Your task to perform on an android device: install app "DuckDuckGo Privacy Browser" Image 0: 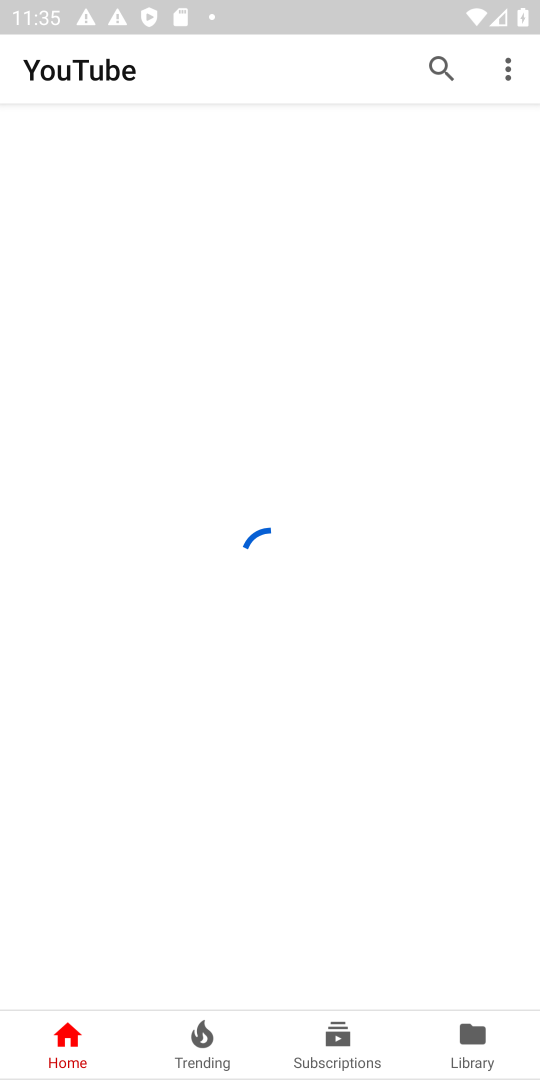
Step 0: press home button
Your task to perform on an android device: install app "DuckDuckGo Privacy Browser" Image 1: 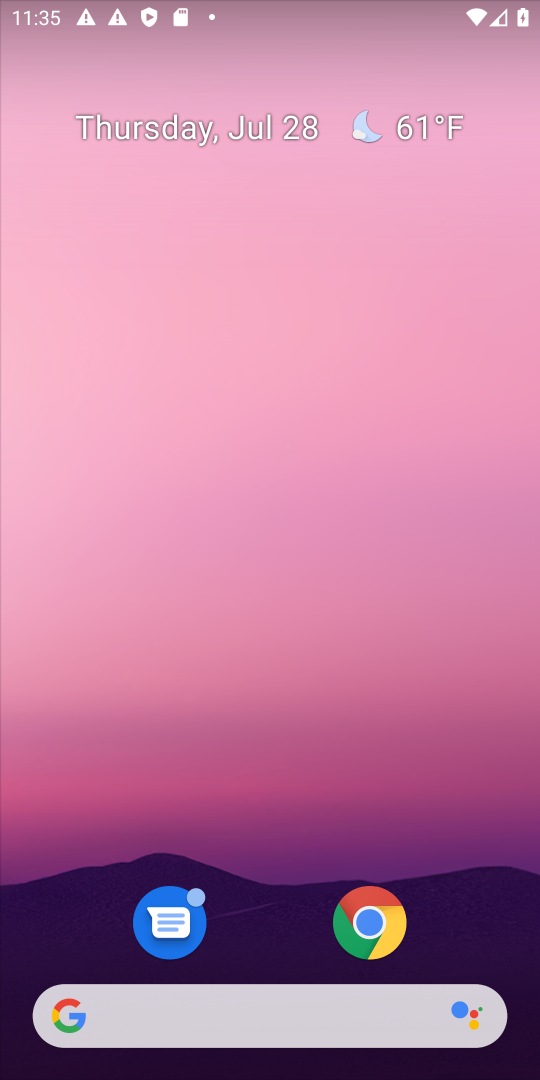
Step 1: drag from (470, 878) to (440, 136)
Your task to perform on an android device: install app "DuckDuckGo Privacy Browser" Image 2: 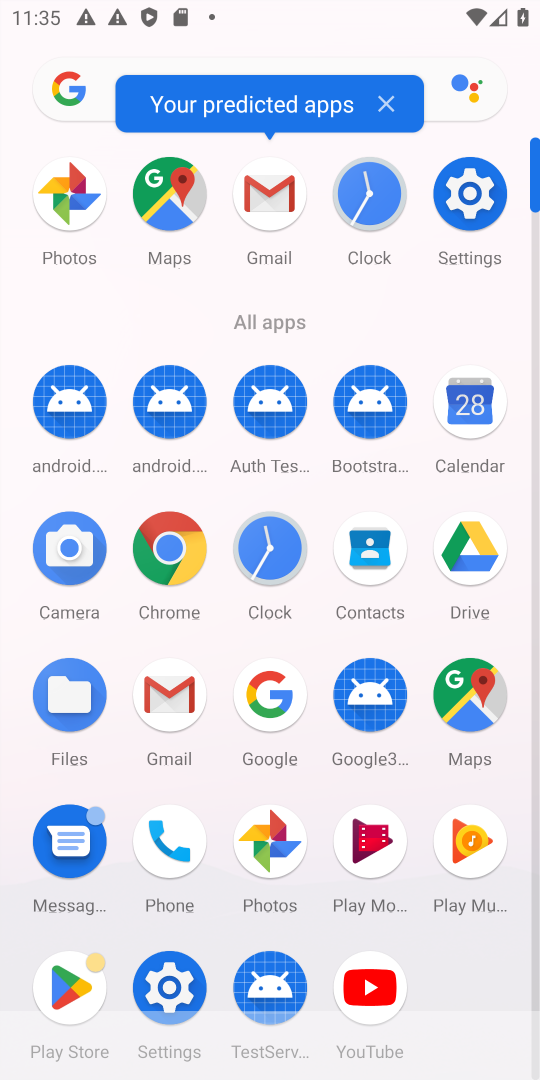
Step 2: click (69, 994)
Your task to perform on an android device: install app "DuckDuckGo Privacy Browser" Image 3: 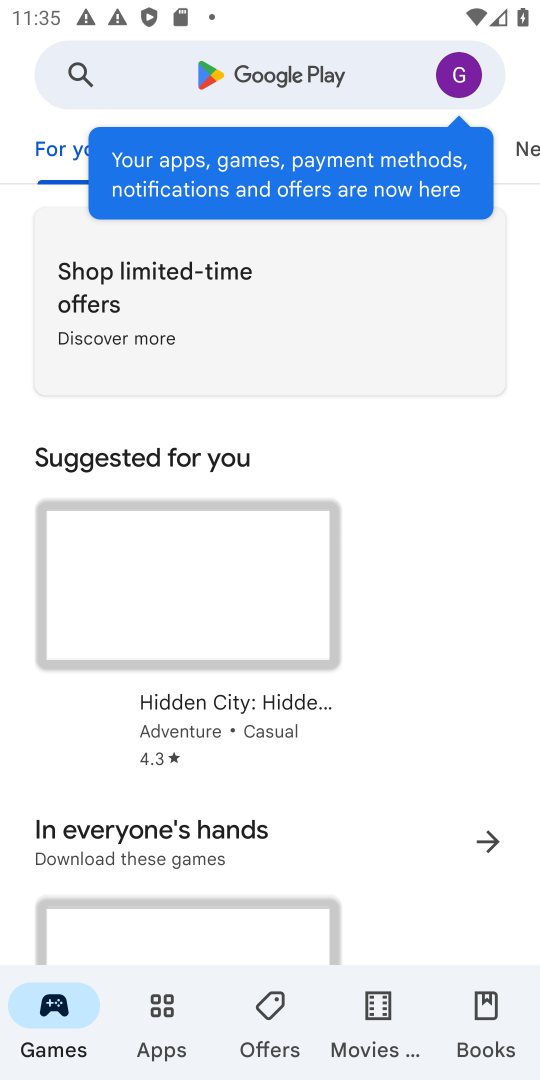
Step 3: click (308, 80)
Your task to perform on an android device: install app "DuckDuckGo Privacy Browser" Image 4: 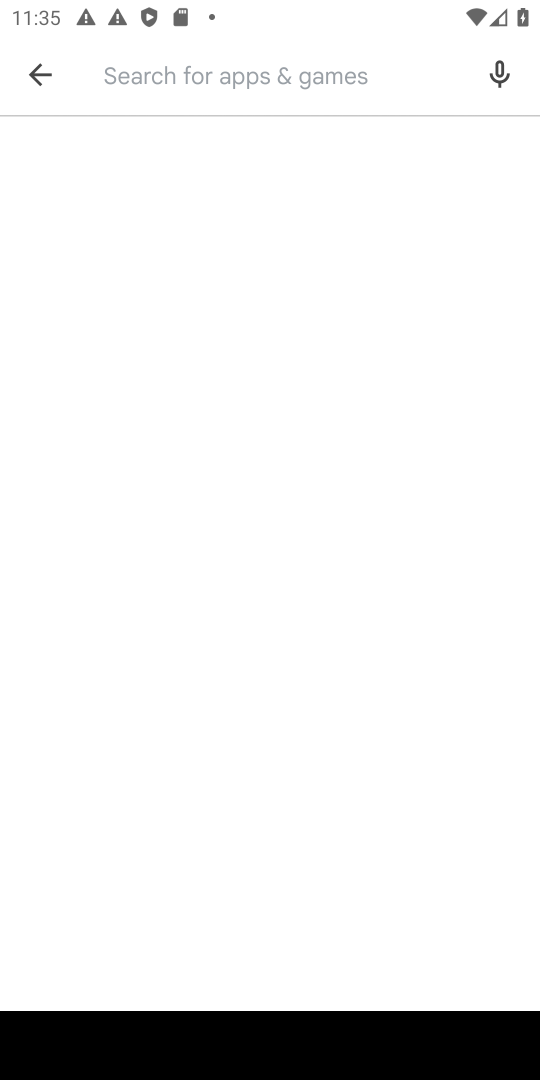
Step 4: type "DuckDuckGo"
Your task to perform on an android device: install app "DuckDuckGo Privacy Browser" Image 5: 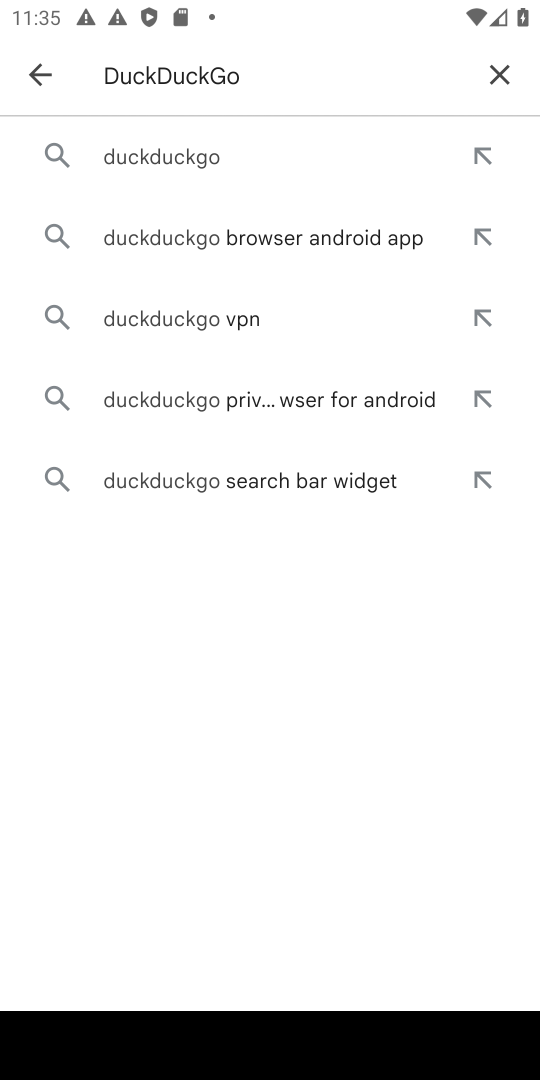
Step 5: press enter
Your task to perform on an android device: install app "DuckDuckGo Privacy Browser" Image 6: 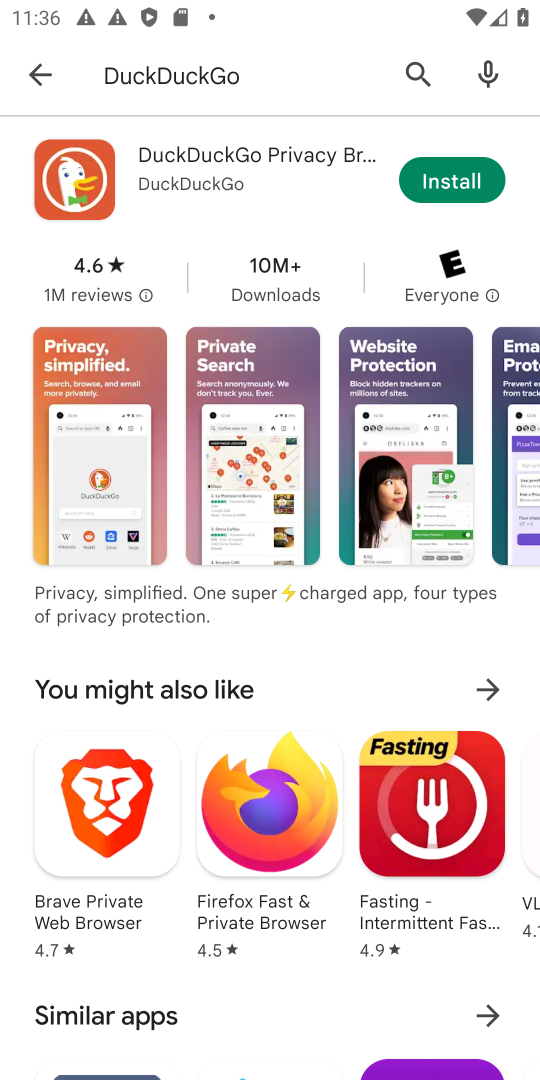
Step 6: click (302, 188)
Your task to perform on an android device: install app "DuckDuckGo Privacy Browser" Image 7: 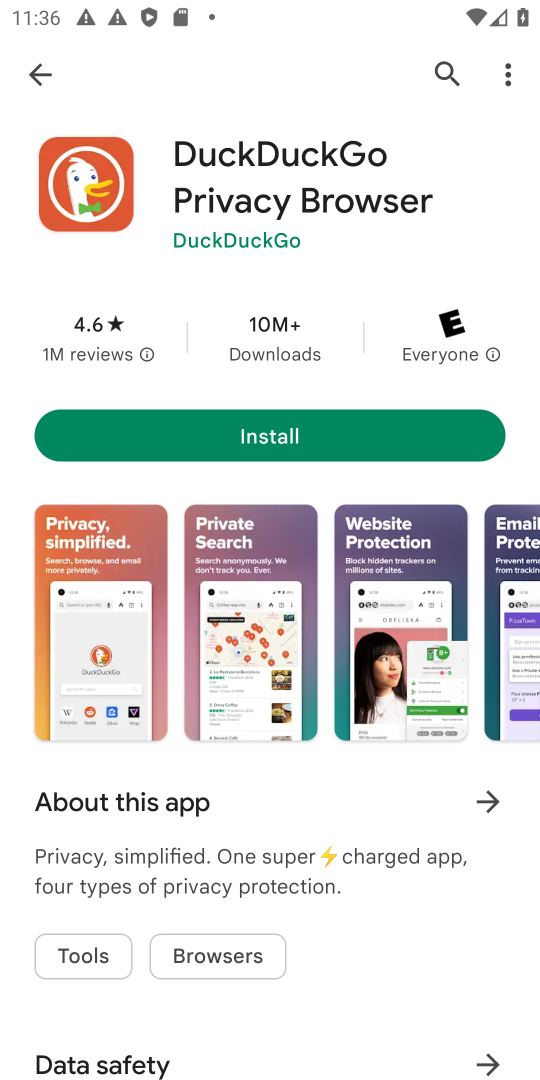
Step 7: click (323, 444)
Your task to perform on an android device: install app "DuckDuckGo Privacy Browser" Image 8: 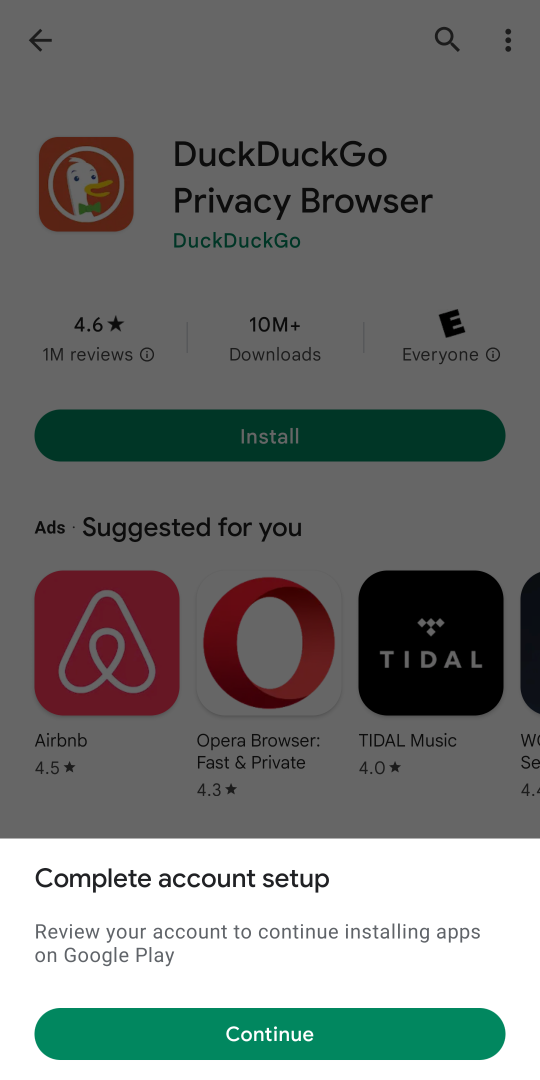
Step 8: click (307, 1036)
Your task to perform on an android device: install app "DuckDuckGo Privacy Browser" Image 9: 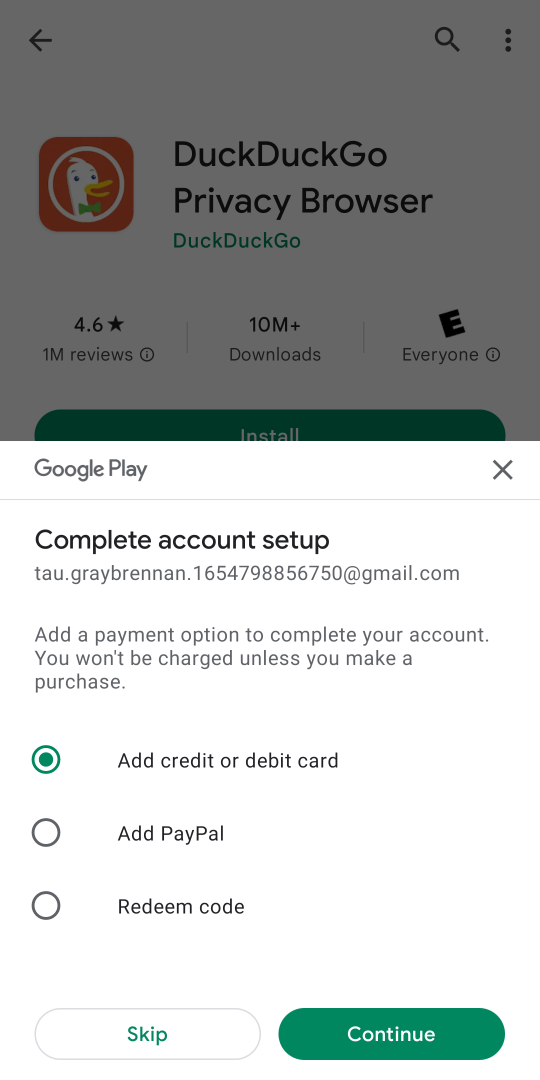
Step 9: click (172, 1018)
Your task to perform on an android device: install app "DuckDuckGo Privacy Browser" Image 10: 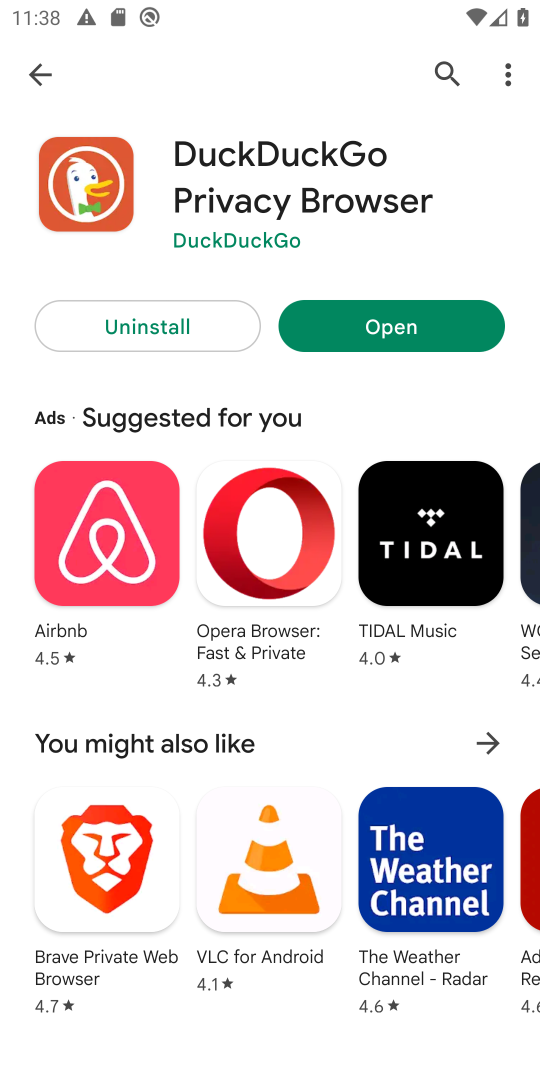
Step 10: task complete